Your task to perform on an android device: toggle wifi Image 0: 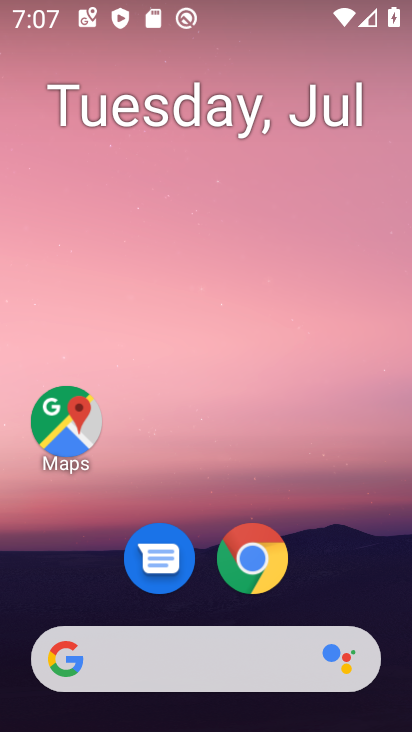
Step 0: drag from (196, 71) to (271, 580)
Your task to perform on an android device: toggle wifi Image 1: 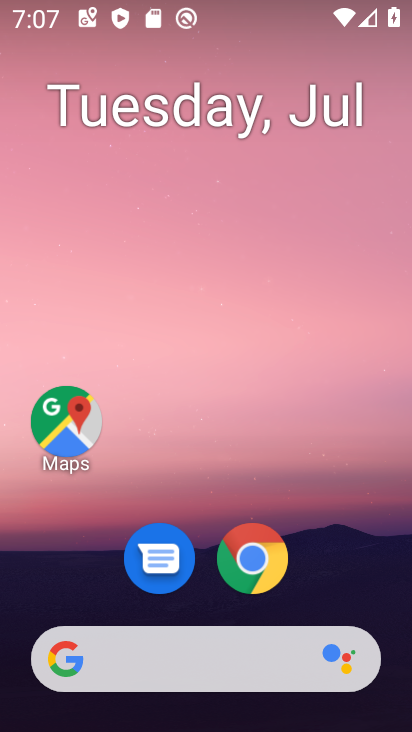
Step 1: drag from (165, 14) to (165, 520)
Your task to perform on an android device: toggle wifi Image 2: 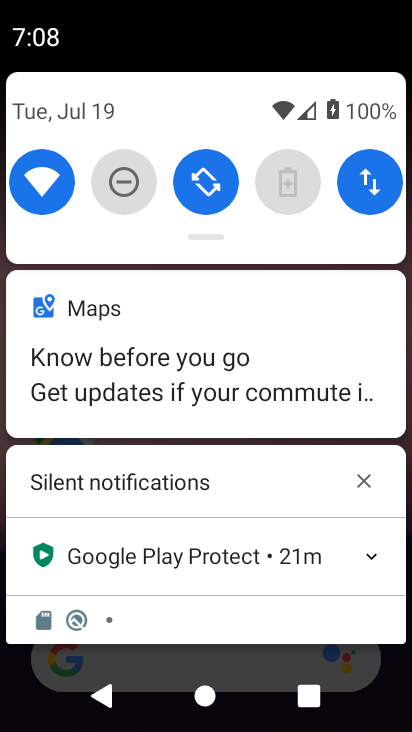
Step 2: click (46, 189)
Your task to perform on an android device: toggle wifi Image 3: 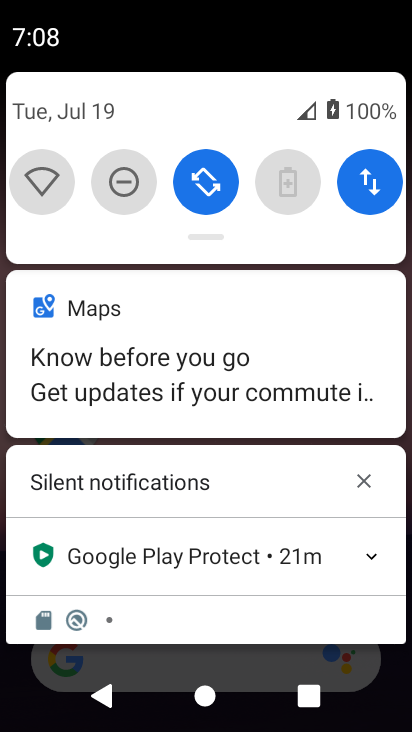
Step 3: task complete